Your task to perform on an android device: open wifi settings Image 0: 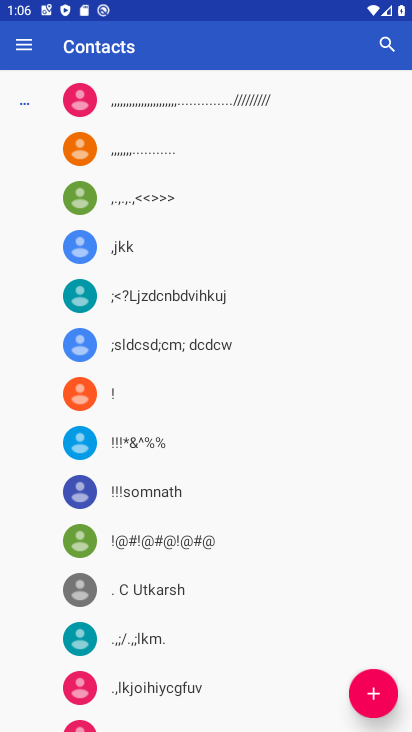
Step 0: press home button
Your task to perform on an android device: open wifi settings Image 1: 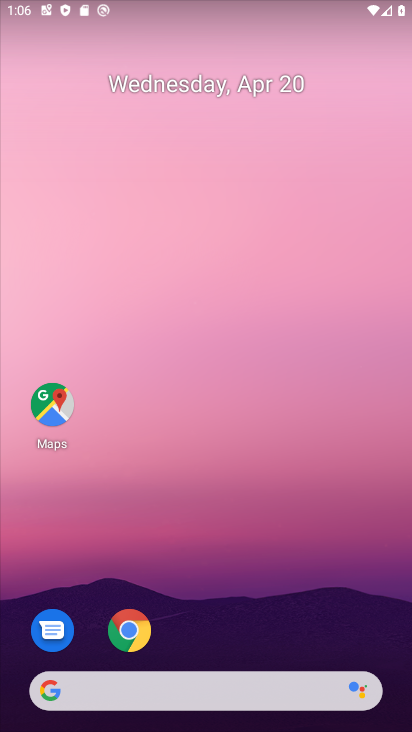
Step 1: drag from (317, 631) to (354, 79)
Your task to perform on an android device: open wifi settings Image 2: 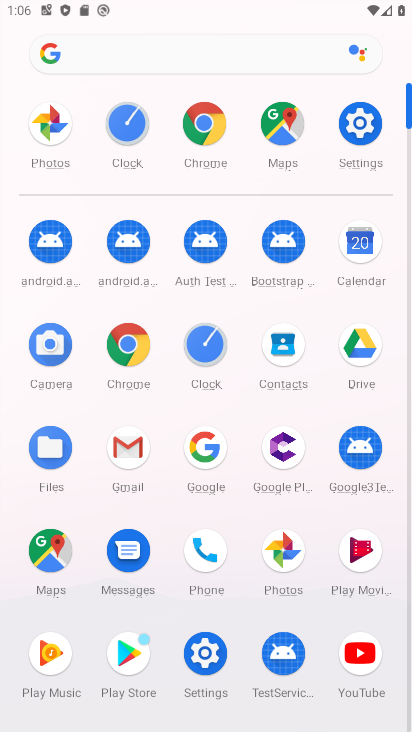
Step 2: click (363, 133)
Your task to perform on an android device: open wifi settings Image 3: 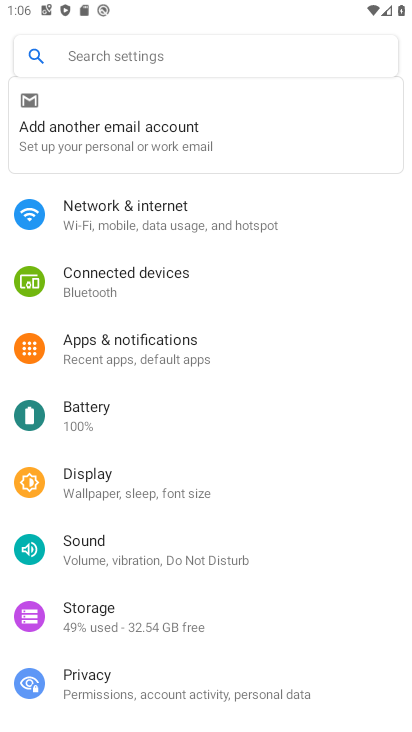
Step 3: click (217, 231)
Your task to perform on an android device: open wifi settings Image 4: 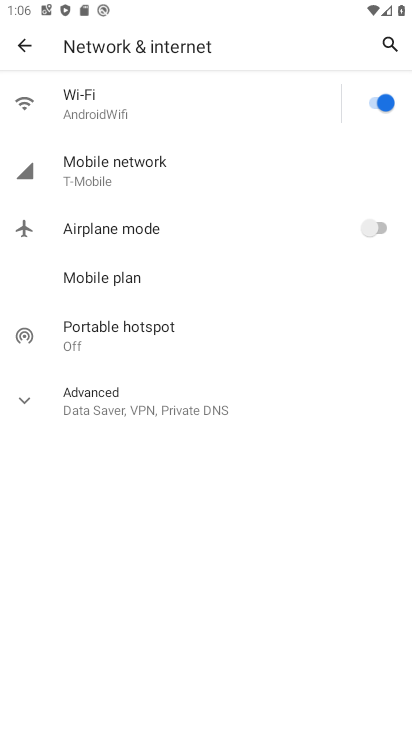
Step 4: click (223, 111)
Your task to perform on an android device: open wifi settings Image 5: 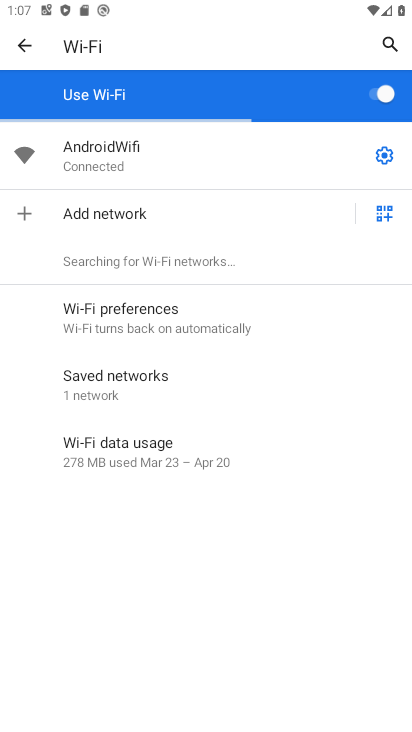
Step 5: click (390, 156)
Your task to perform on an android device: open wifi settings Image 6: 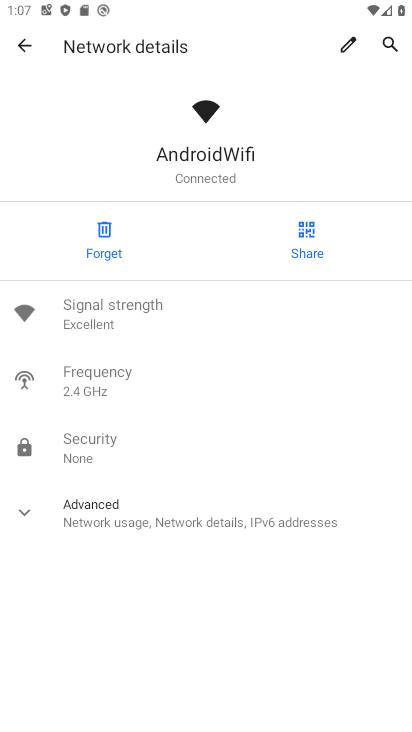
Step 6: task complete